Your task to perform on an android device: turn on javascript in the chrome app Image 0: 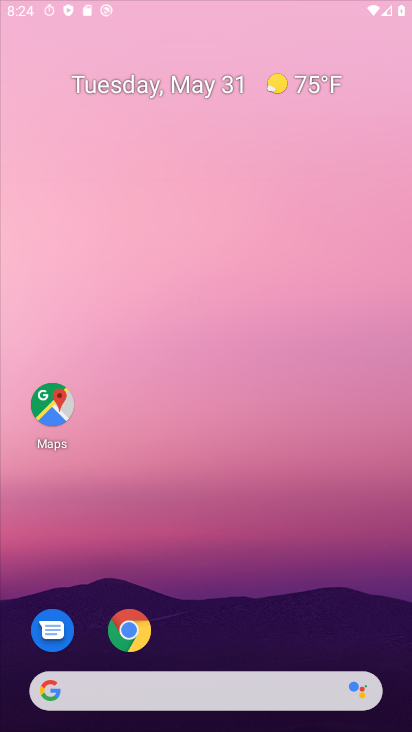
Step 0: drag from (210, 511) to (258, 158)
Your task to perform on an android device: turn on javascript in the chrome app Image 1: 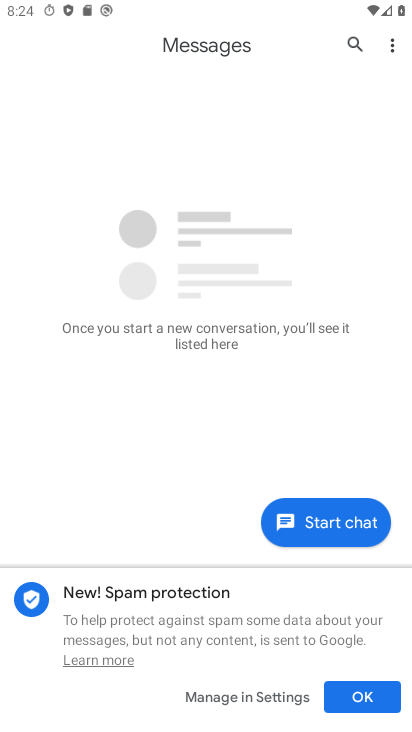
Step 1: press home button
Your task to perform on an android device: turn on javascript in the chrome app Image 2: 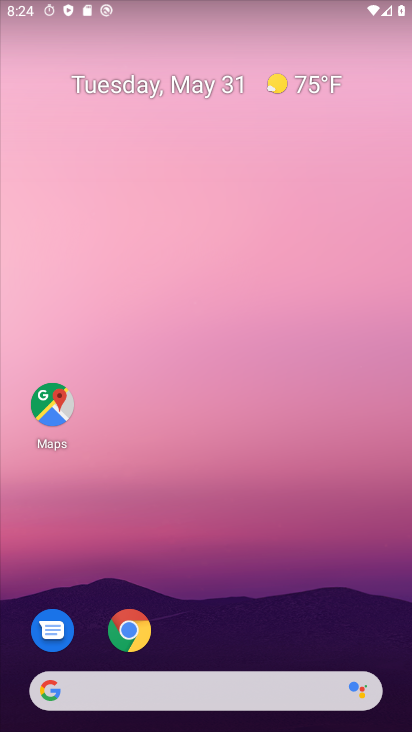
Step 2: drag from (236, 537) to (241, 220)
Your task to perform on an android device: turn on javascript in the chrome app Image 3: 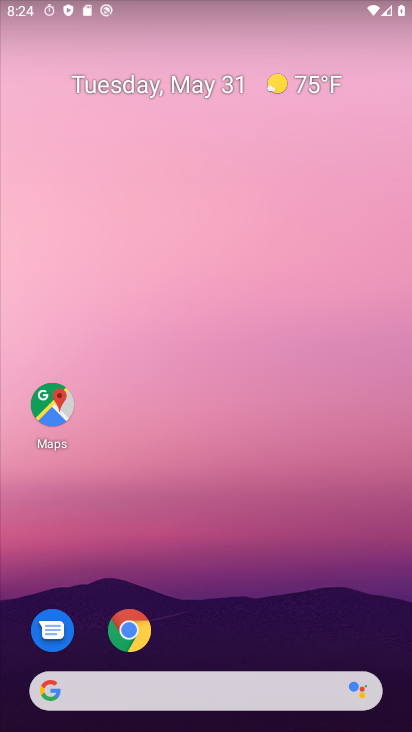
Step 3: drag from (175, 695) to (260, 248)
Your task to perform on an android device: turn on javascript in the chrome app Image 4: 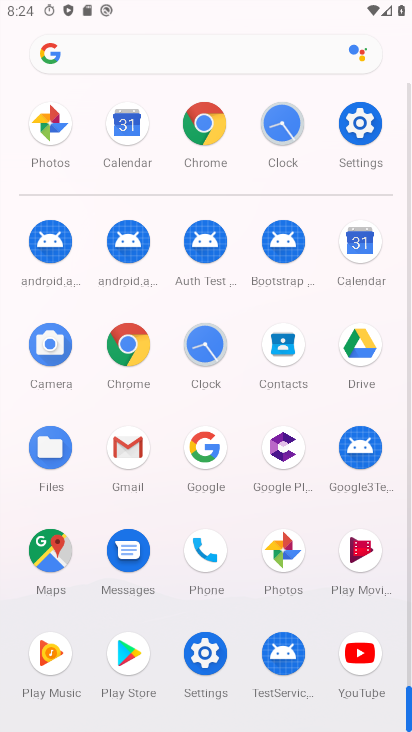
Step 4: click (137, 371)
Your task to perform on an android device: turn on javascript in the chrome app Image 5: 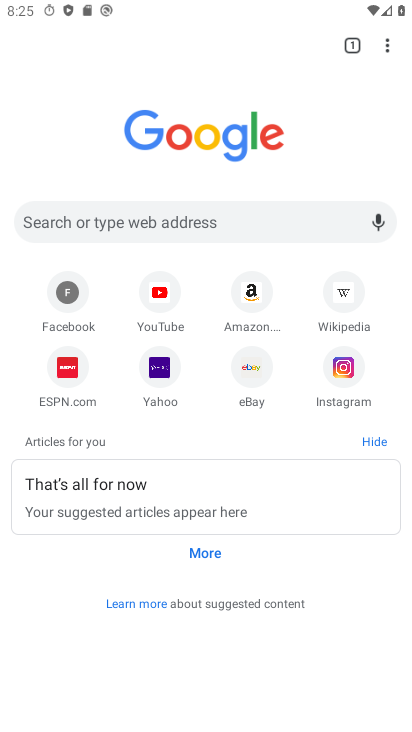
Step 5: click (381, 50)
Your task to perform on an android device: turn on javascript in the chrome app Image 6: 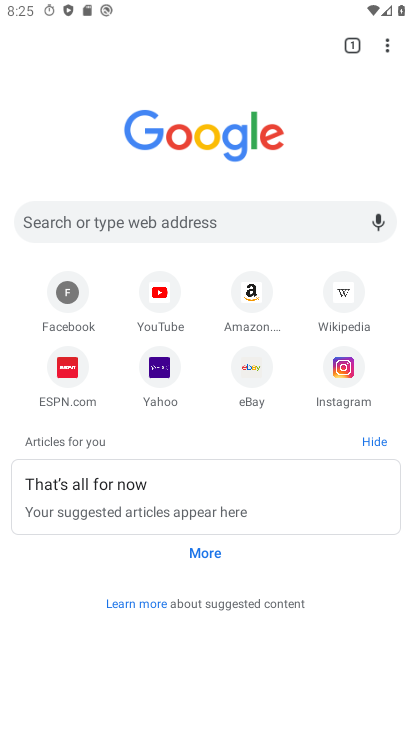
Step 6: click (391, 49)
Your task to perform on an android device: turn on javascript in the chrome app Image 7: 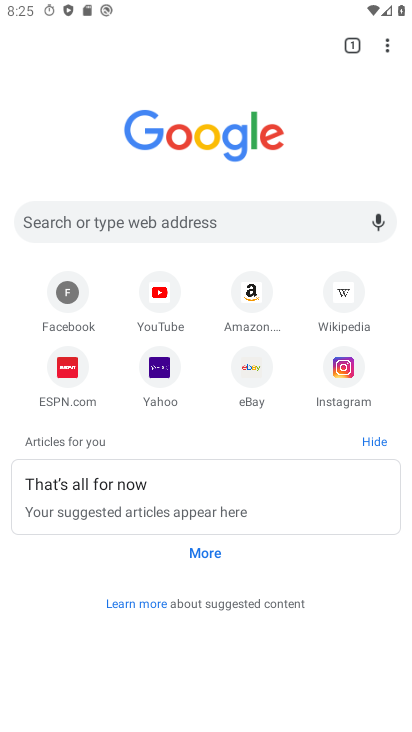
Step 7: click (391, 53)
Your task to perform on an android device: turn on javascript in the chrome app Image 8: 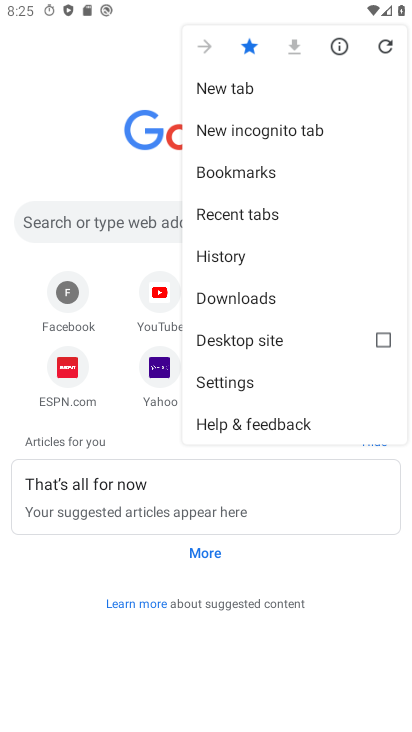
Step 8: click (235, 386)
Your task to perform on an android device: turn on javascript in the chrome app Image 9: 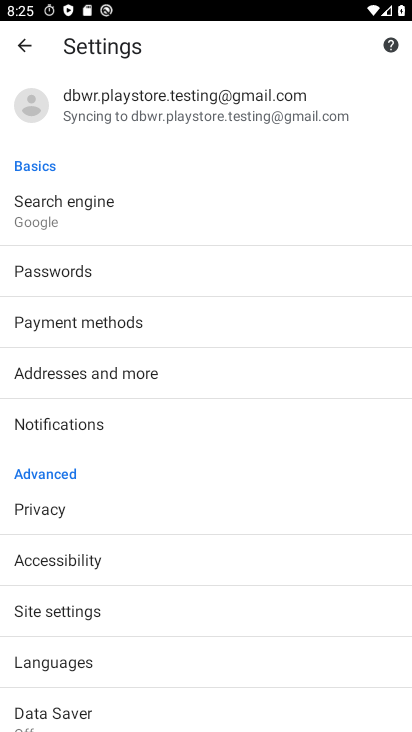
Step 9: drag from (170, 547) to (204, 273)
Your task to perform on an android device: turn on javascript in the chrome app Image 10: 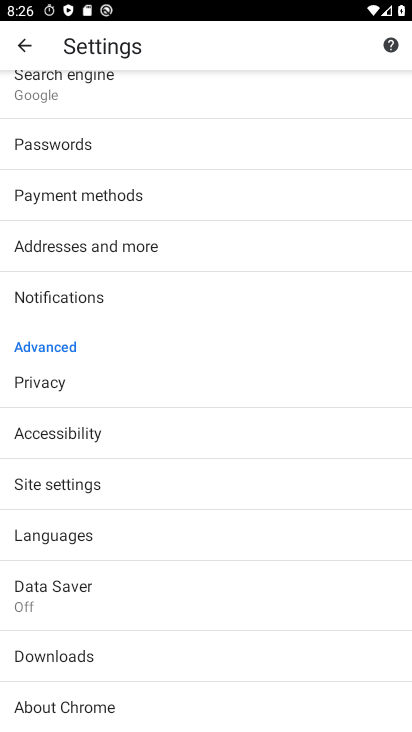
Step 10: click (85, 489)
Your task to perform on an android device: turn on javascript in the chrome app Image 11: 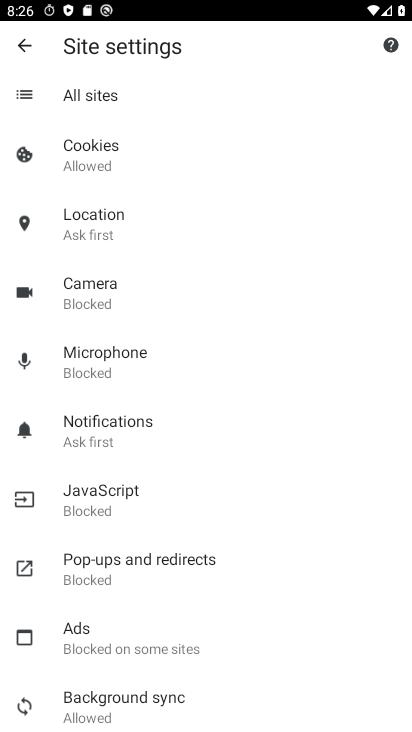
Step 11: click (133, 501)
Your task to perform on an android device: turn on javascript in the chrome app Image 12: 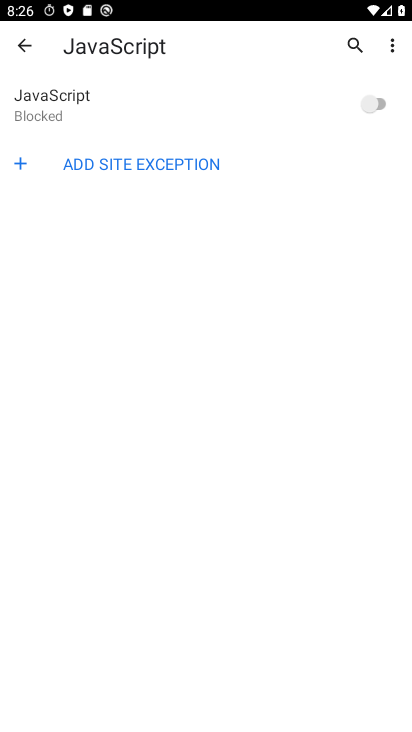
Step 12: click (379, 101)
Your task to perform on an android device: turn on javascript in the chrome app Image 13: 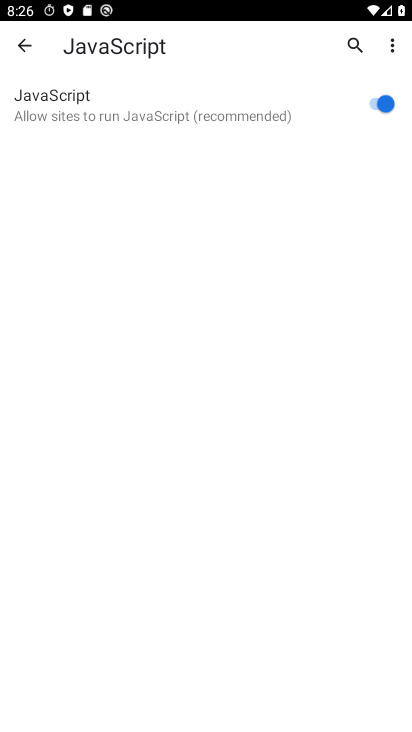
Step 13: task complete